Your task to perform on an android device: uninstall "Instagram" Image 0: 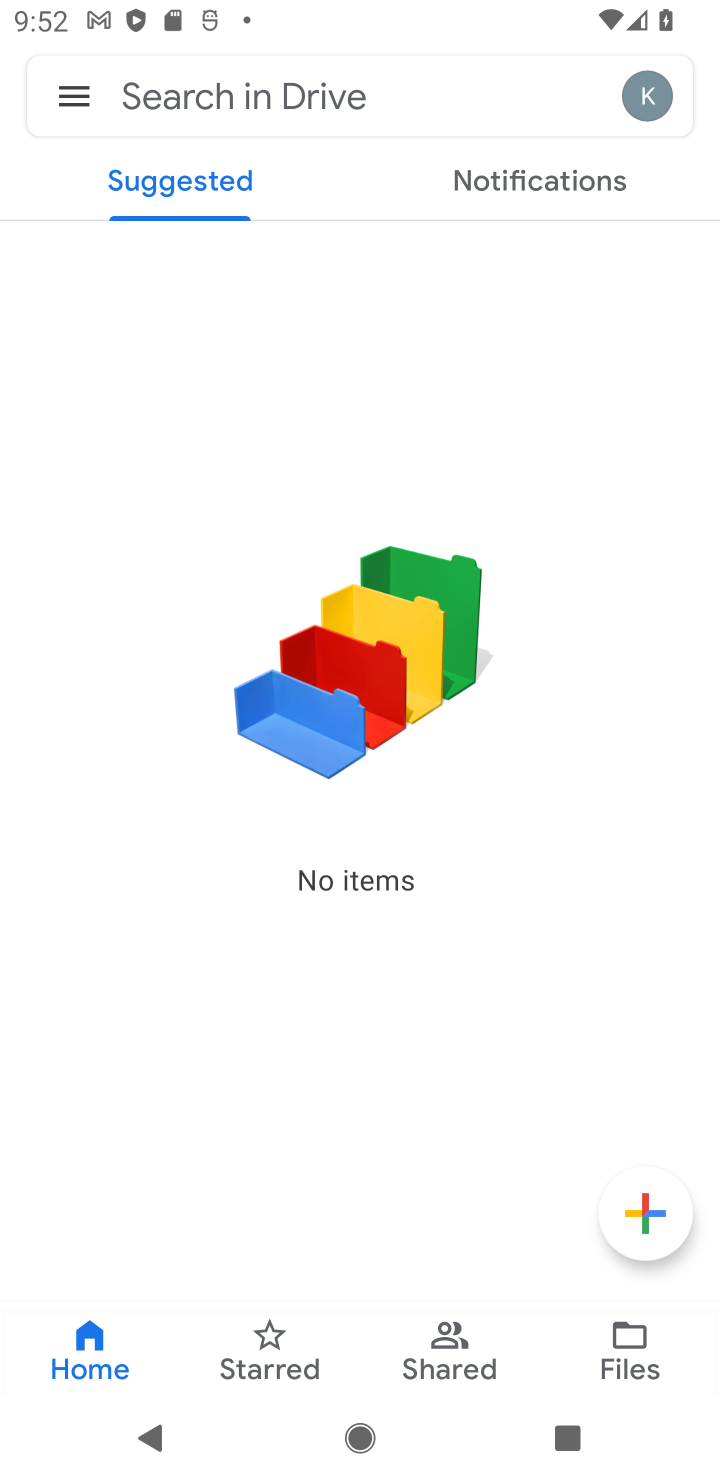
Step 0: press back button
Your task to perform on an android device: uninstall "Instagram" Image 1: 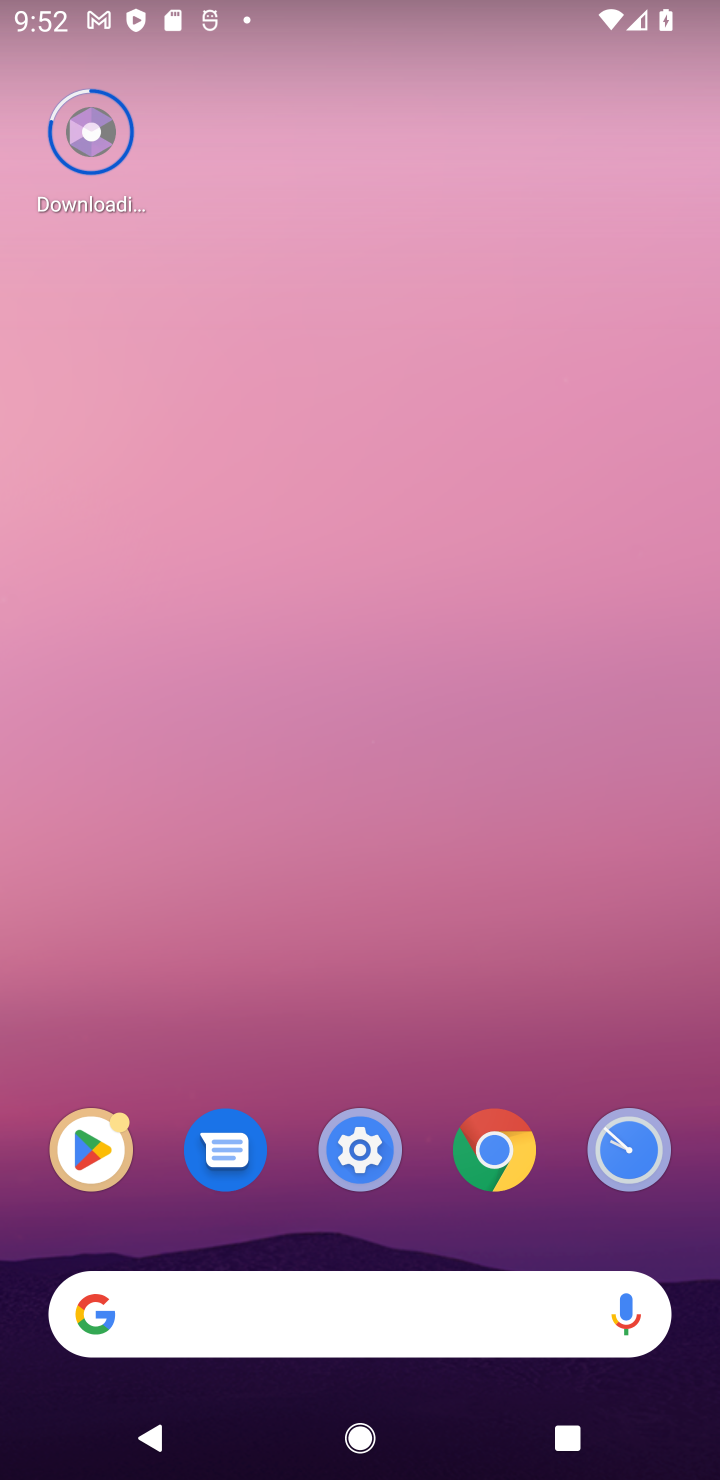
Step 1: drag from (396, 1295) to (348, 143)
Your task to perform on an android device: uninstall "Instagram" Image 2: 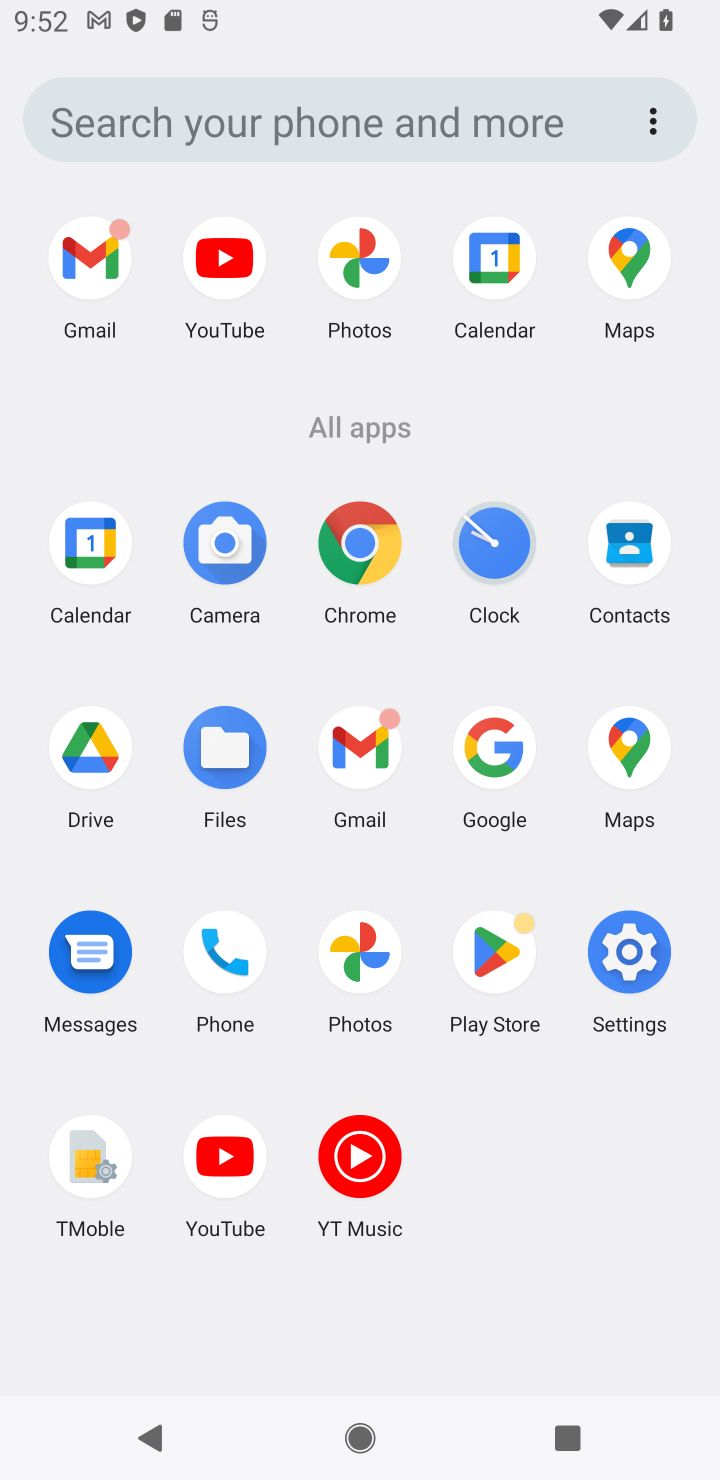
Step 2: click (504, 949)
Your task to perform on an android device: uninstall "Instagram" Image 3: 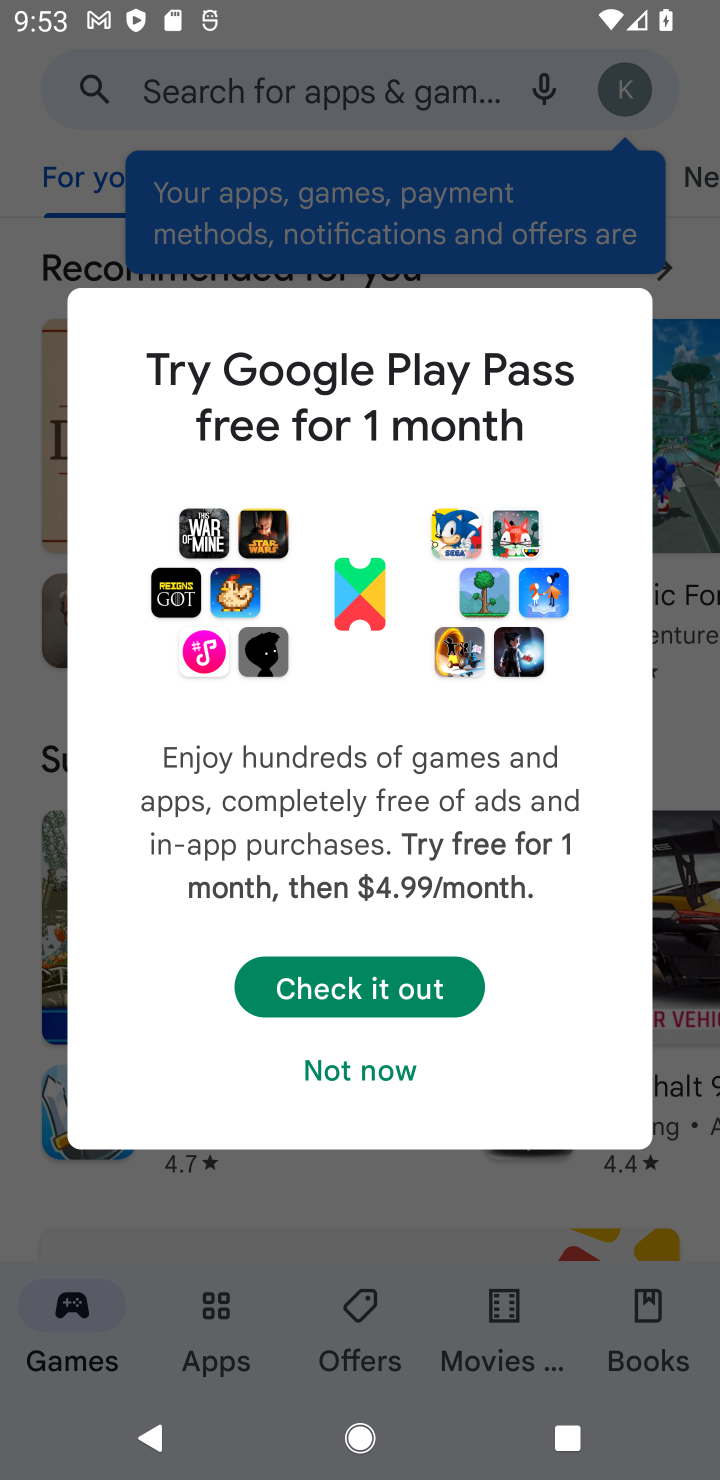
Step 3: click (366, 1063)
Your task to perform on an android device: uninstall "Instagram" Image 4: 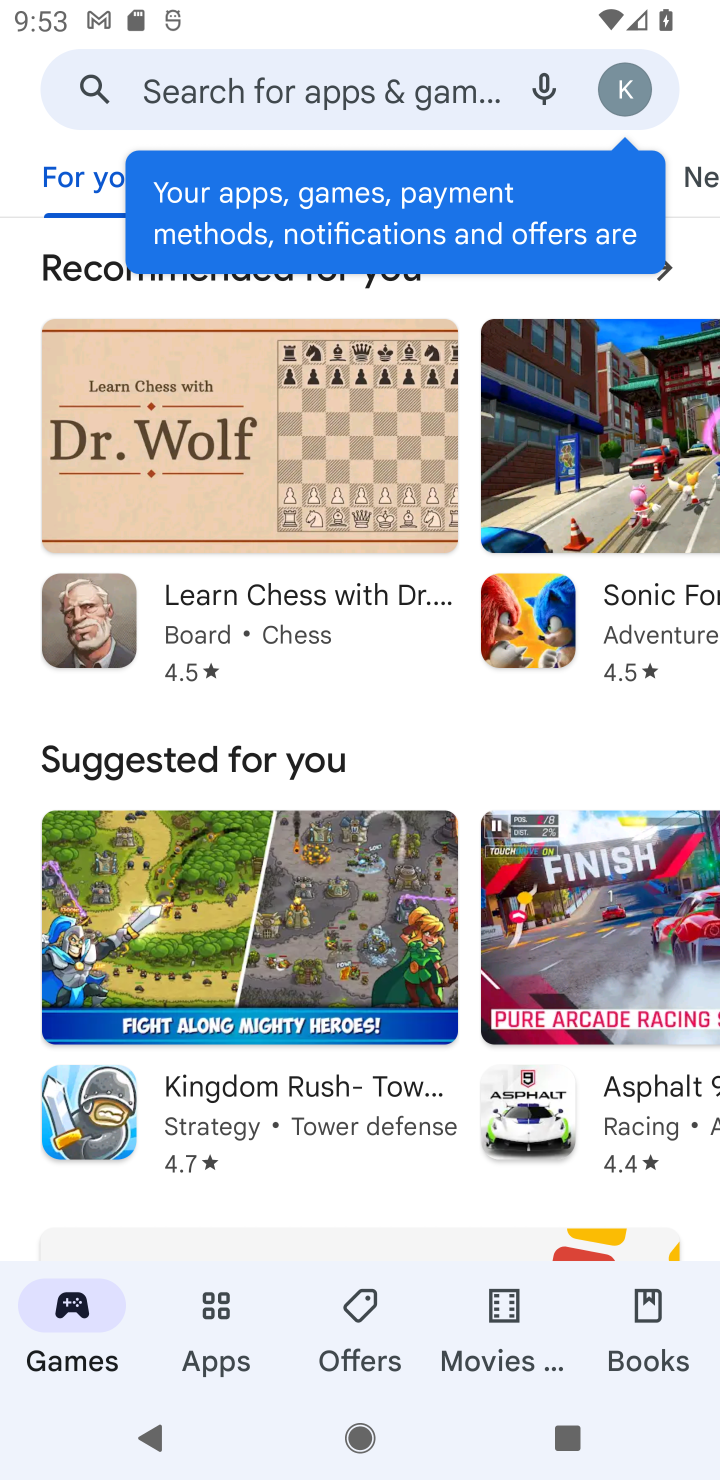
Step 4: click (411, 90)
Your task to perform on an android device: uninstall "Instagram" Image 5: 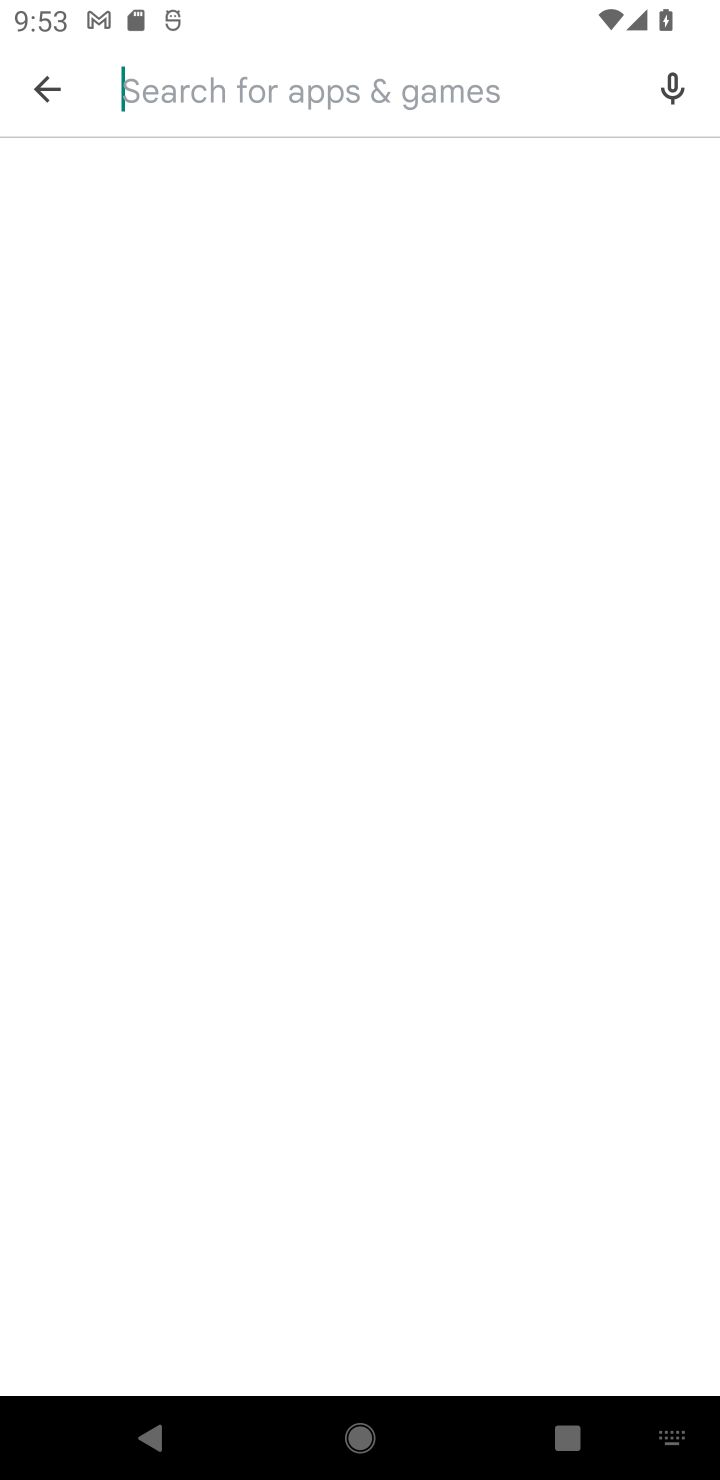
Step 5: type "instagram"
Your task to perform on an android device: uninstall "Instagram" Image 6: 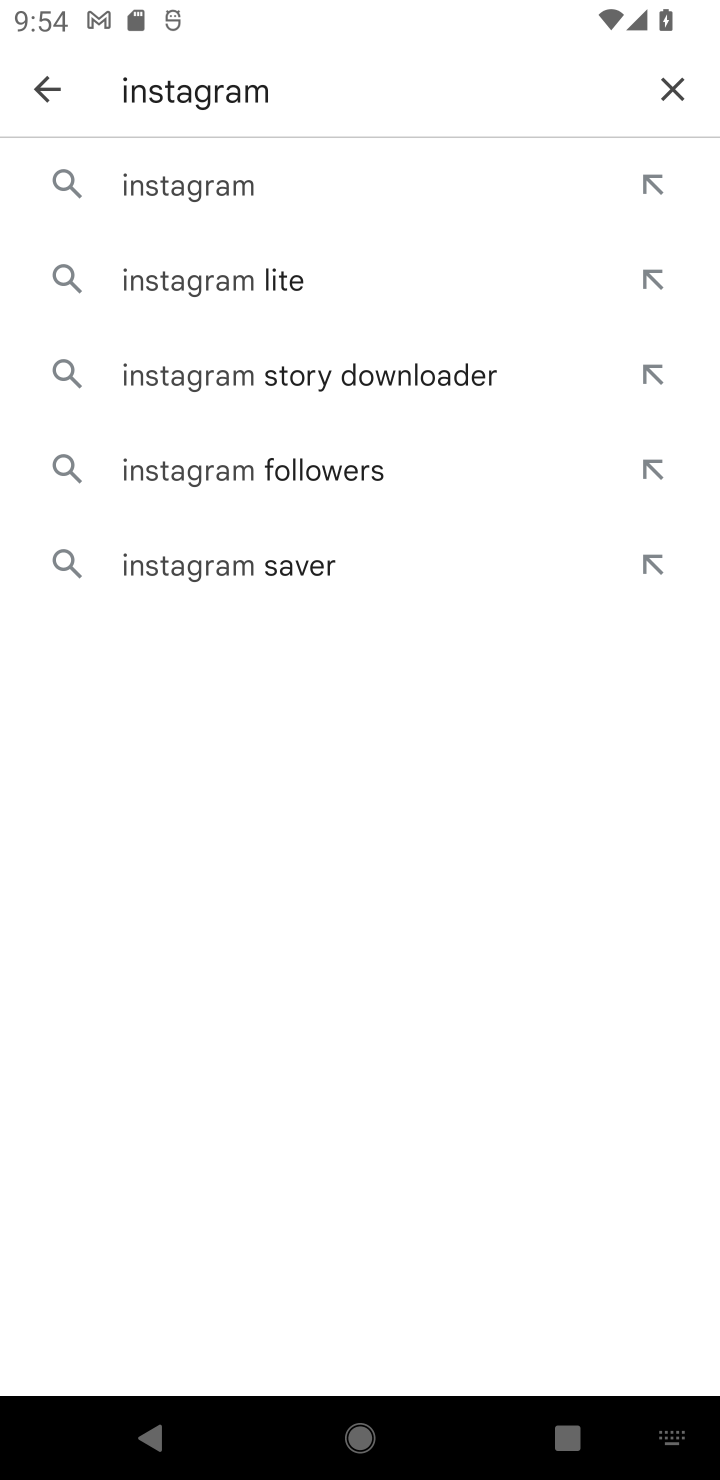
Step 6: click (229, 171)
Your task to perform on an android device: uninstall "Instagram" Image 7: 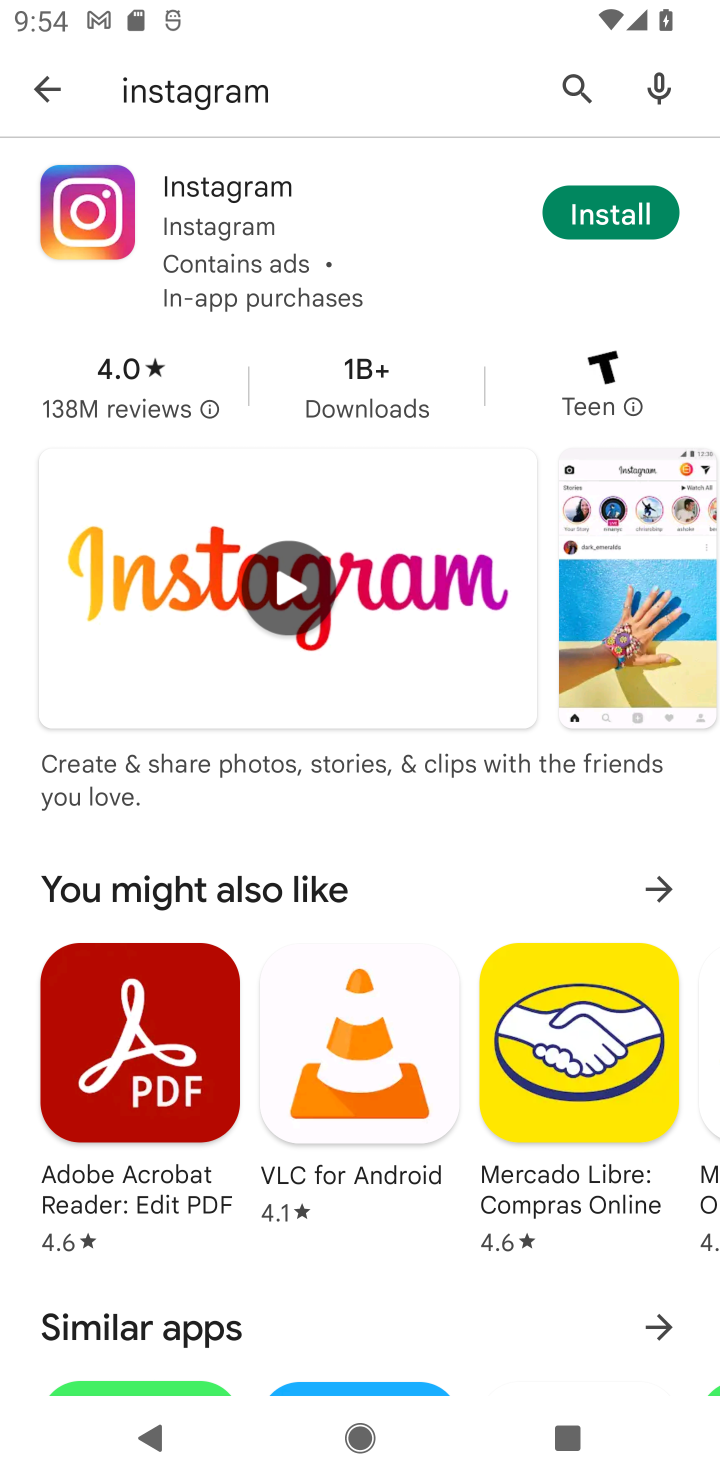
Step 7: task complete